Your task to perform on an android device: turn off improve location accuracy Image 0: 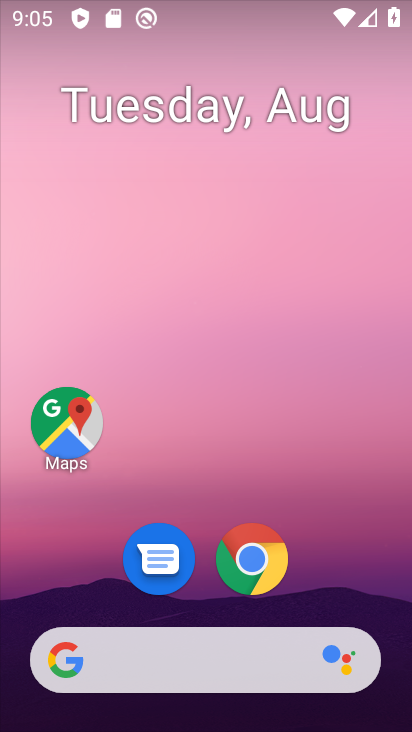
Step 0: drag from (346, 532) to (338, 14)
Your task to perform on an android device: turn off improve location accuracy Image 1: 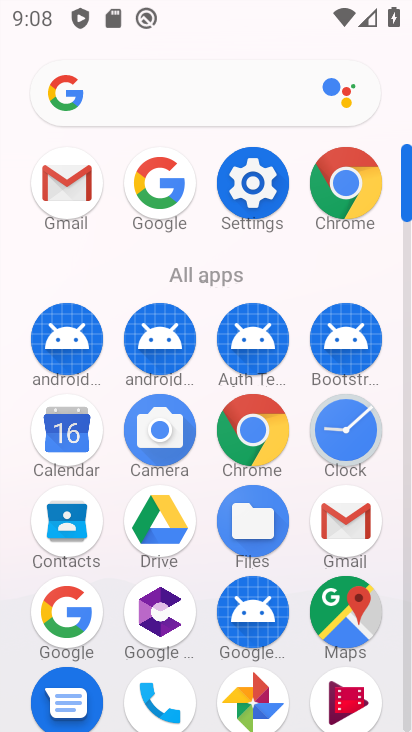
Step 1: click (240, 177)
Your task to perform on an android device: turn off improve location accuracy Image 2: 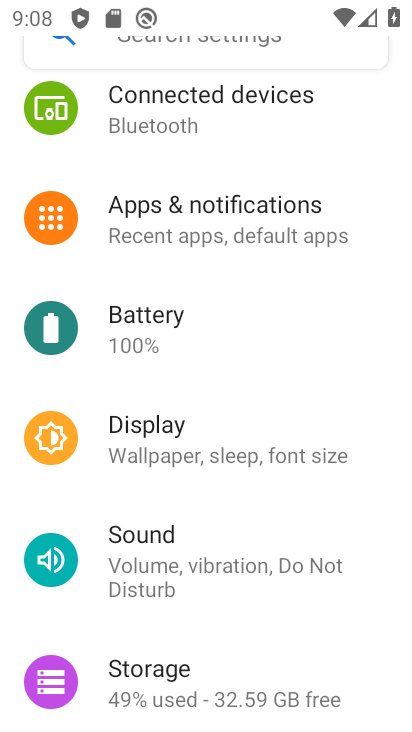
Step 2: drag from (198, 588) to (174, 94)
Your task to perform on an android device: turn off improve location accuracy Image 3: 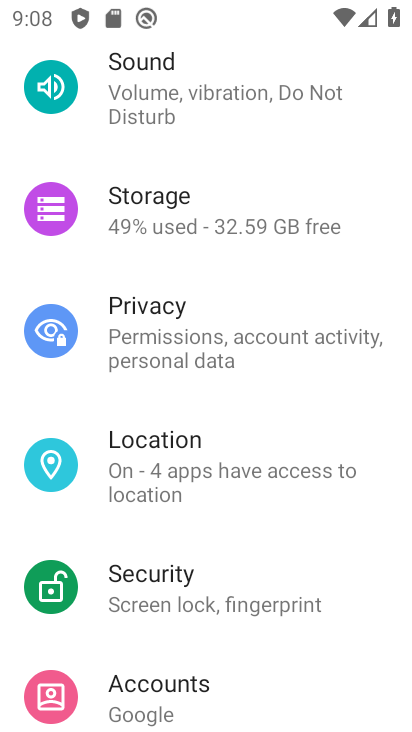
Step 3: drag from (214, 647) to (188, 261)
Your task to perform on an android device: turn off improve location accuracy Image 4: 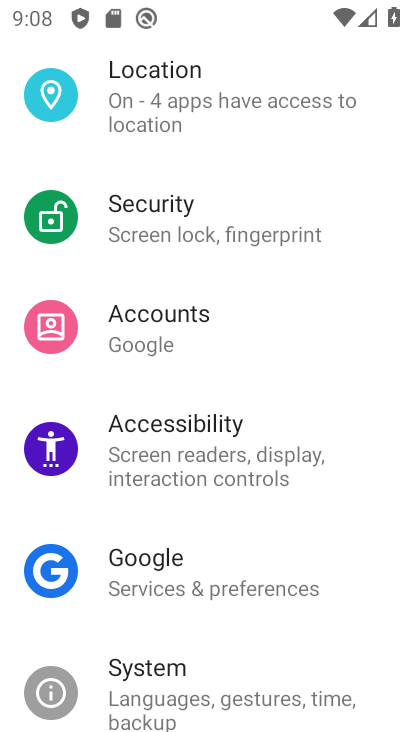
Step 4: drag from (232, 639) to (208, 354)
Your task to perform on an android device: turn off improve location accuracy Image 5: 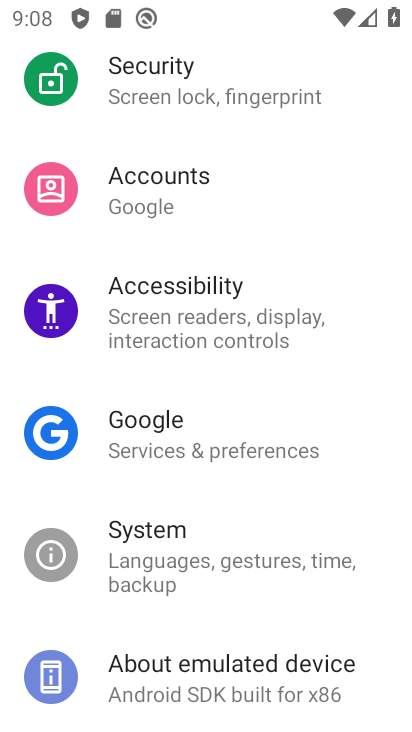
Step 5: drag from (218, 223) to (236, 590)
Your task to perform on an android device: turn off improve location accuracy Image 6: 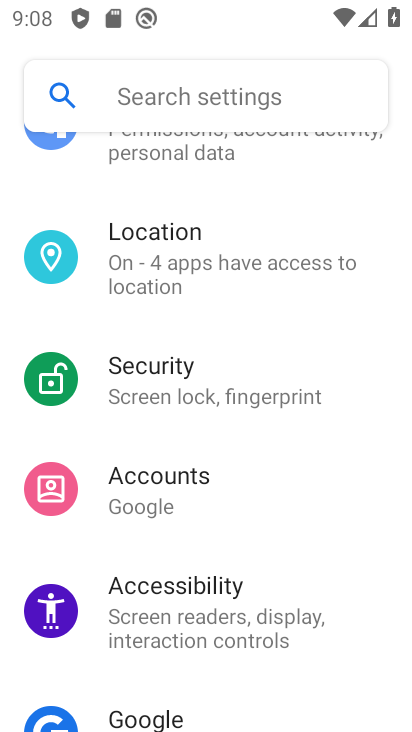
Step 6: drag from (196, 188) to (195, 534)
Your task to perform on an android device: turn off improve location accuracy Image 7: 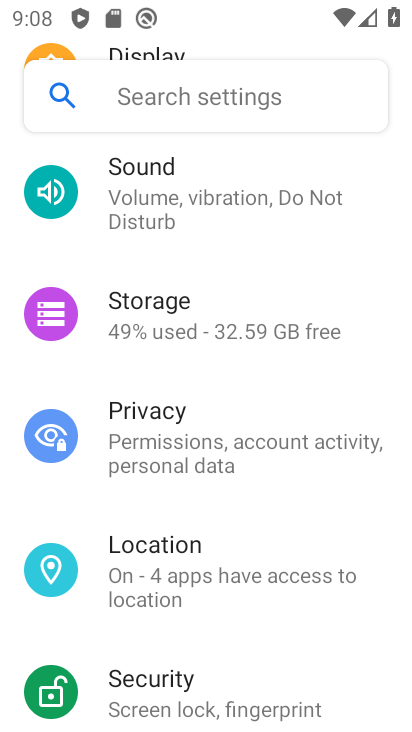
Step 7: click (155, 576)
Your task to perform on an android device: turn off improve location accuracy Image 8: 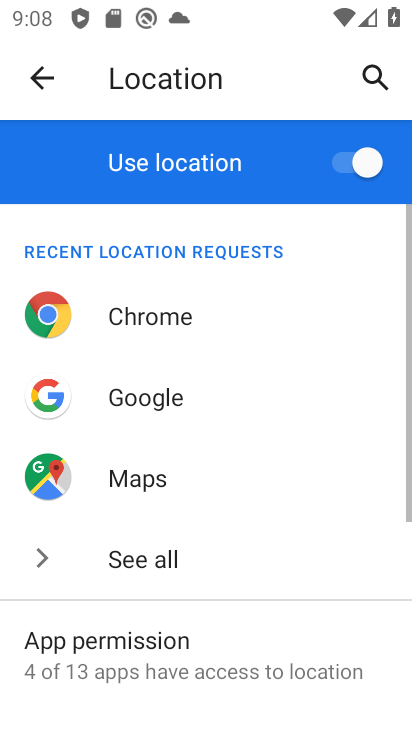
Step 8: click (354, 131)
Your task to perform on an android device: turn off improve location accuracy Image 9: 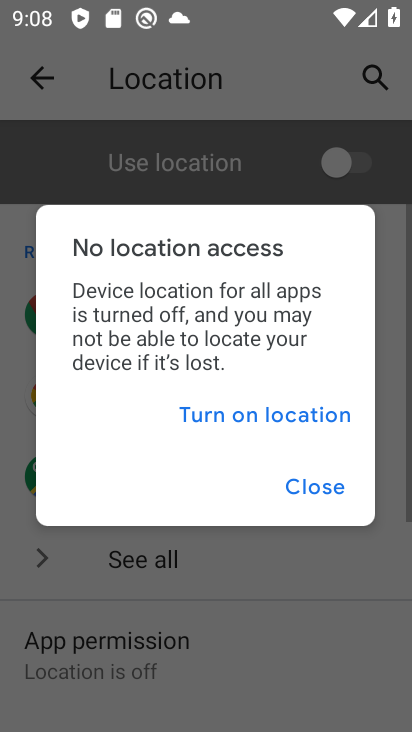
Step 9: click (361, 155)
Your task to perform on an android device: turn off improve location accuracy Image 10: 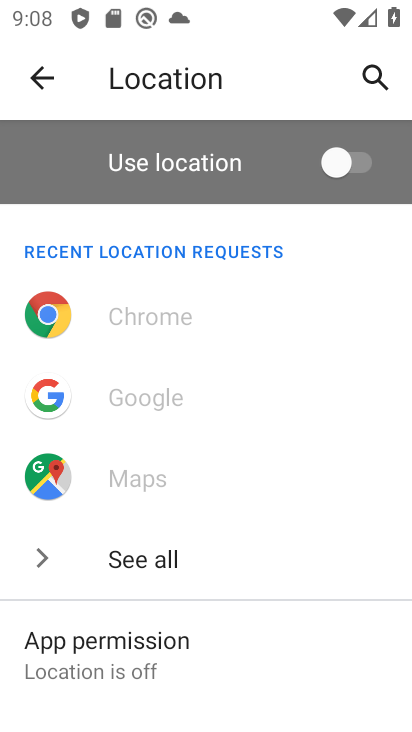
Step 10: click (347, 162)
Your task to perform on an android device: turn off improve location accuracy Image 11: 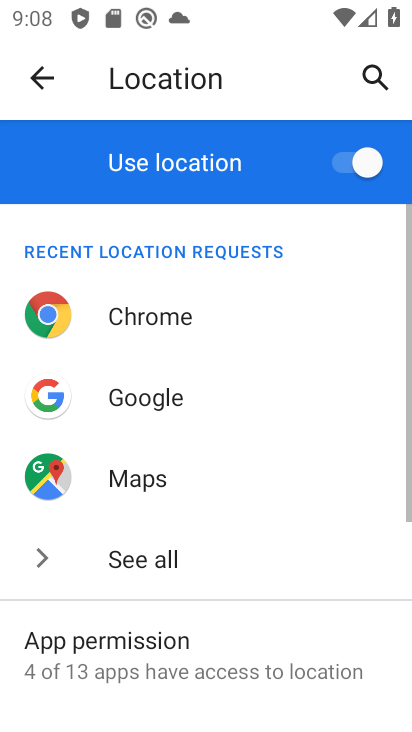
Step 11: drag from (224, 675) to (209, 290)
Your task to perform on an android device: turn off improve location accuracy Image 12: 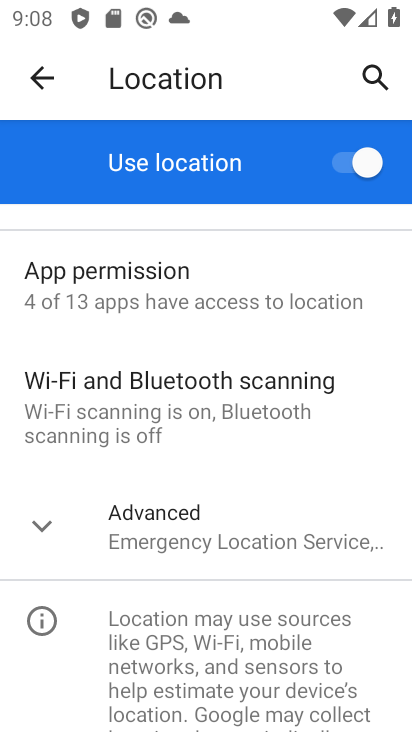
Step 12: click (205, 521)
Your task to perform on an android device: turn off improve location accuracy Image 13: 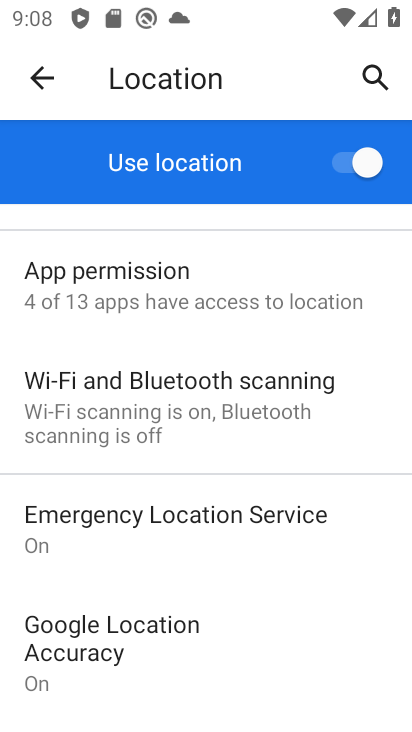
Step 13: drag from (232, 624) to (206, 334)
Your task to perform on an android device: turn off improve location accuracy Image 14: 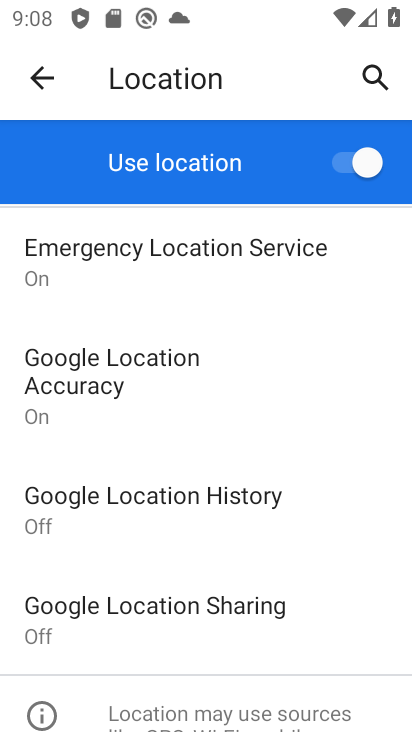
Step 14: click (86, 371)
Your task to perform on an android device: turn off improve location accuracy Image 15: 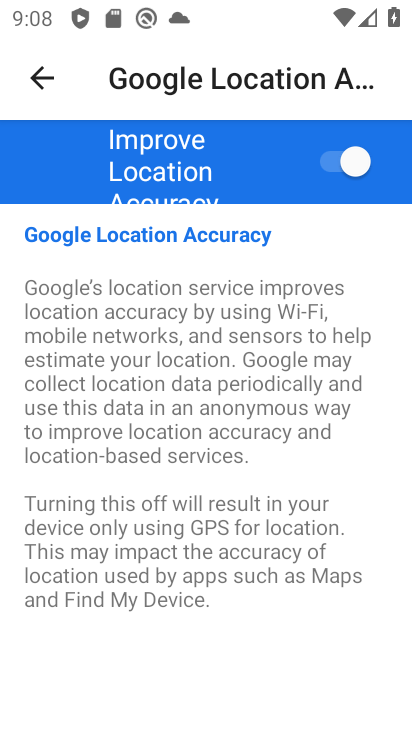
Step 15: click (350, 153)
Your task to perform on an android device: turn off improve location accuracy Image 16: 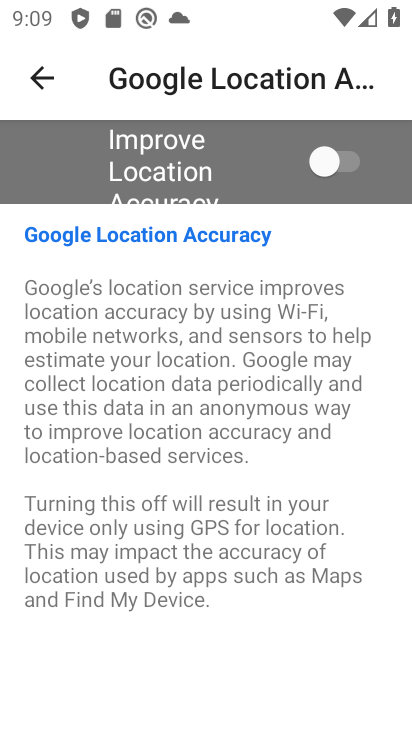
Step 16: task complete